Your task to perform on an android device: toggle data saver in the chrome app Image 0: 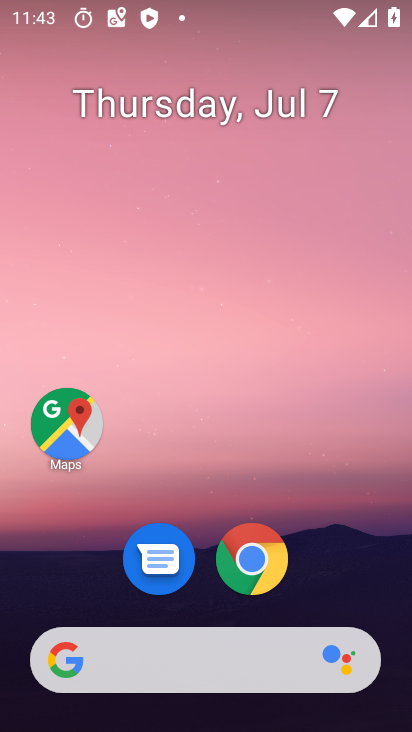
Step 0: drag from (368, 593) to (372, 85)
Your task to perform on an android device: toggle data saver in the chrome app Image 1: 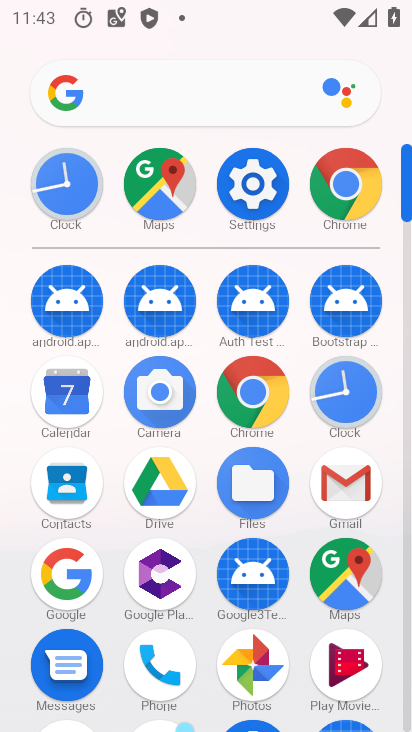
Step 1: click (245, 400)
Your task to perform on an android device: toggle data saver in the chrome app Image 2: 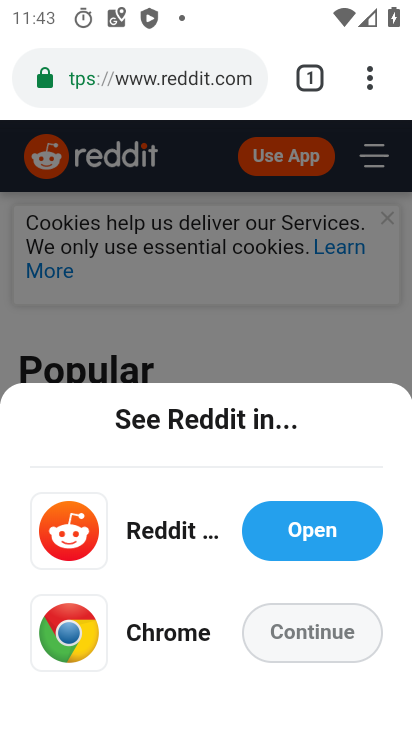
Step 2: click (372, 88)
Your task to perform on an android device: toggle data saver in the chrome app Image 3: 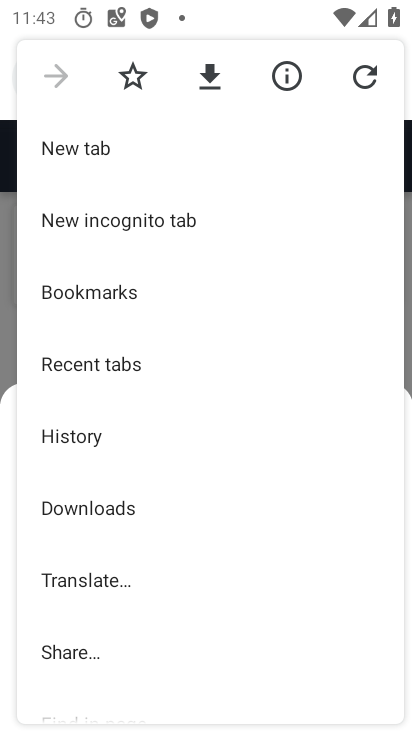
Step 3: drag from (253, 517) to (258, 332)
Your task to perform on an android device: toggle data saver in the chrome app Image 4: 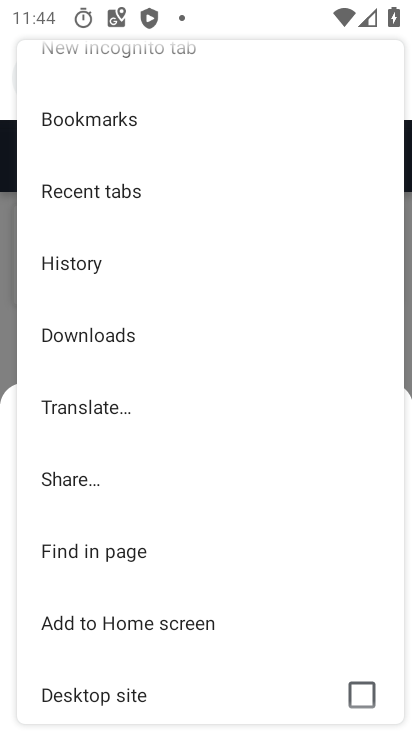
Step 4: drag from (266, 528) to (276, 338)
Your task to perform on an android device: toggle data saver in the chrome app Image 5: 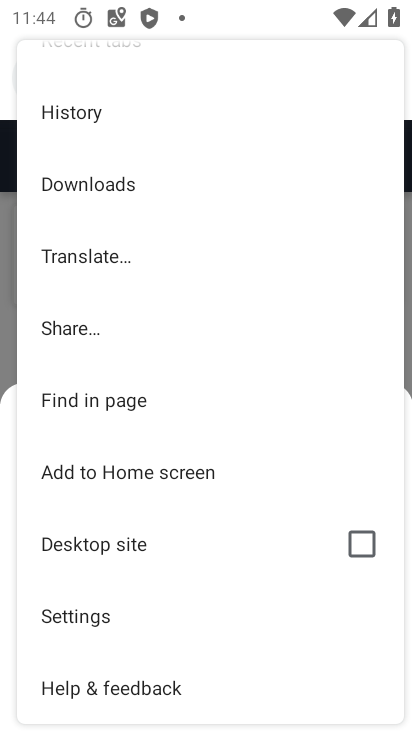
Step 5: drag from (250, 529) to (265, 356)
Your task to perform on an android device: toggle data saver in the chrome app Image 6: 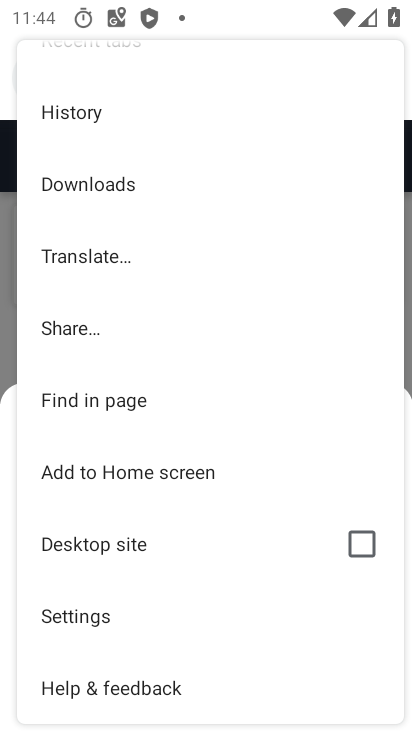
Step 6: click (123, 615)
Your task to perform on an android device: toggle data saver in the chrome app Image 7: 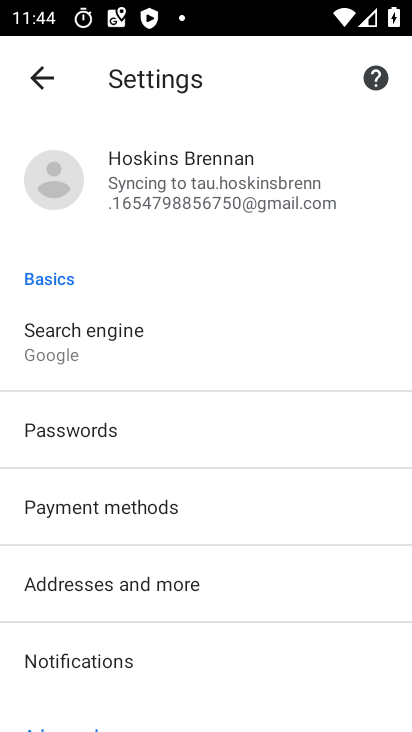
Step 7: drag from (297, 491) to (306, 344)
Your task to perform on an android device: toggle data saver in the chrome app Image 8: 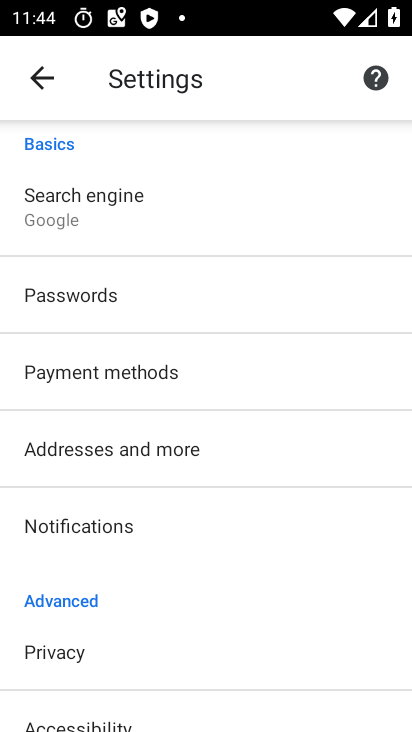
Step 8: drag from (313, 547) to (311, 361)
Your task to perform on an android device: toggle data saver in the chrome app Image 9: 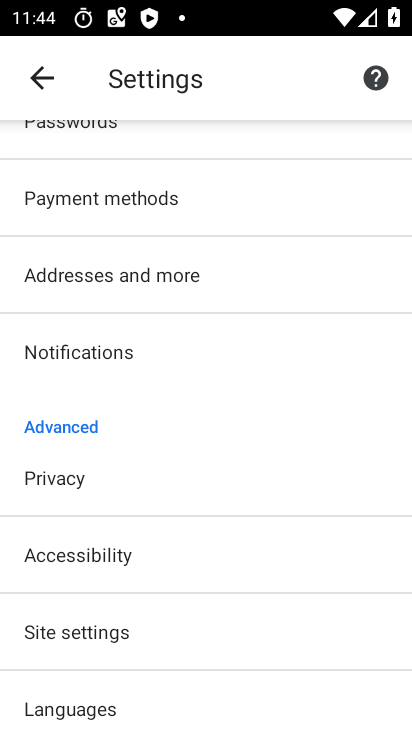
Step 9: drag from (306, 573) to (312, 385)
Your task to perform on an android device: toggle data saver in the chrome app Image 10: 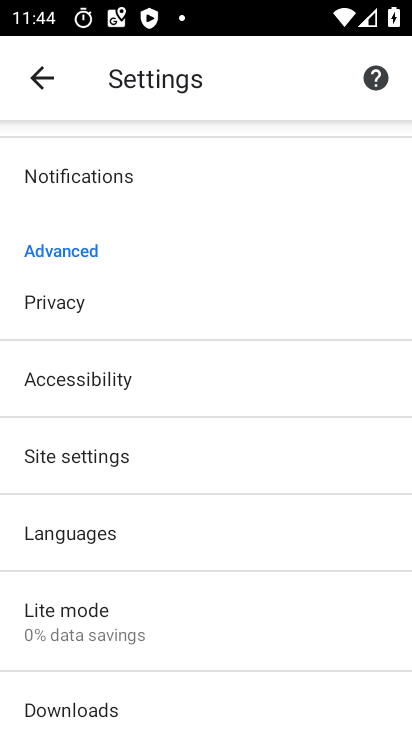
Step 10: drag from (306, 600) to (306, 374)
Your task to perform on an android device: toggle data saver in the chrome app Image 11: 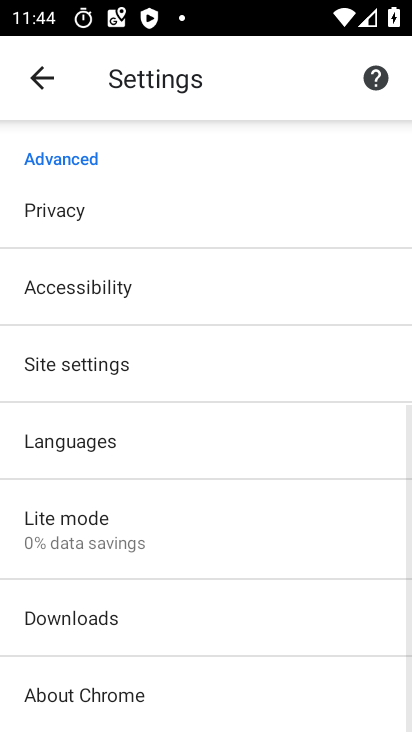
Step 11: drag from (306, 264) to (303, 430)
Your task to perform on an android device: toggle data saver in the chrome app Image 12: 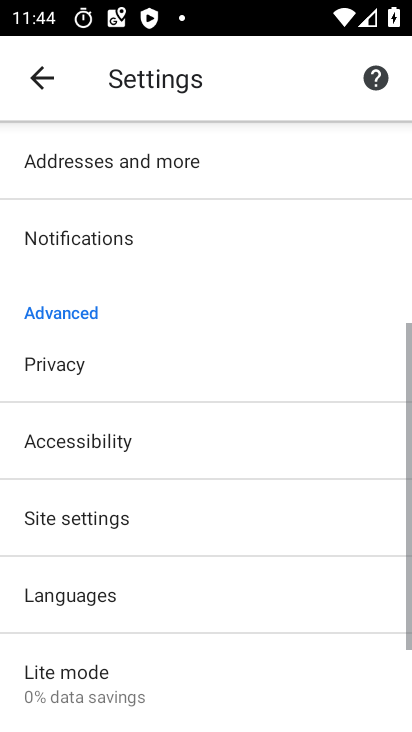
Step 12: drag from (304, 322) to (310, 510)
Your task to perform on an android device: toggle data saver in the chrome app Image 13: 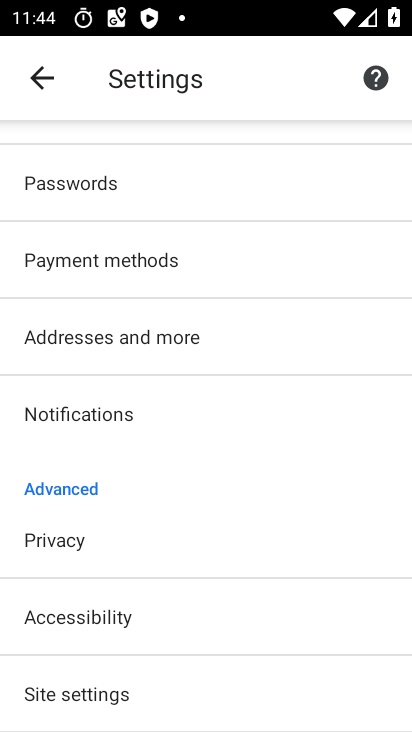
Step 13: drag from (324, 593) to (342, 247)
Your task to perform on an android device: toggle data saver in the chrome app Image 14: 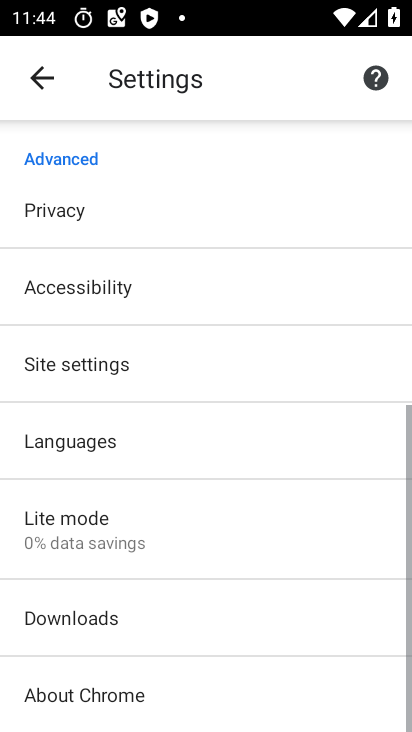
Step 14: drag from (337, 574) to (341, 335)
Your task to perform on an android device: toggle data saver in the chrome app Image 15: 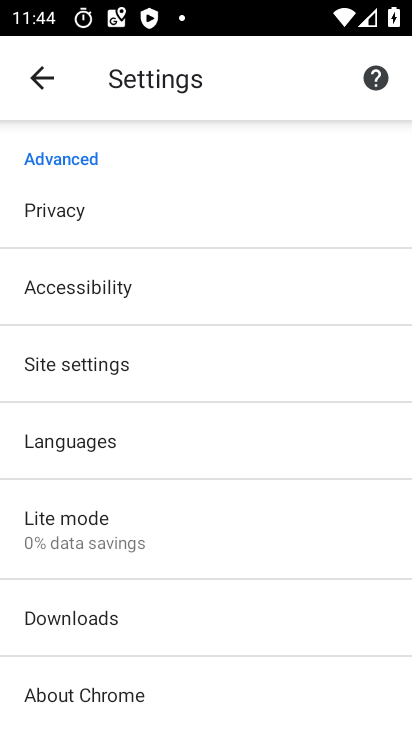
Step 15: click (127, 535)
Your task to perform on an android device: toggle data saver in the chrome app Image 16: 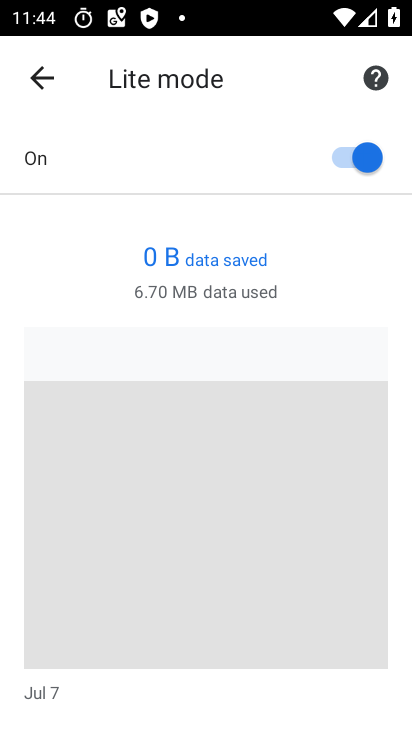
Step 16: task complete